Your task to perform on an android device: turn off location Image 0: 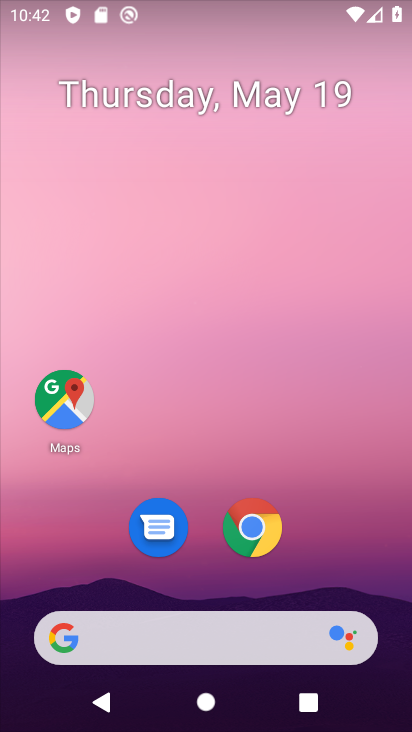
Step 0: drag from (198, 582) to (178, 0)
Your task to perform on an android device: turn off location Image 1: 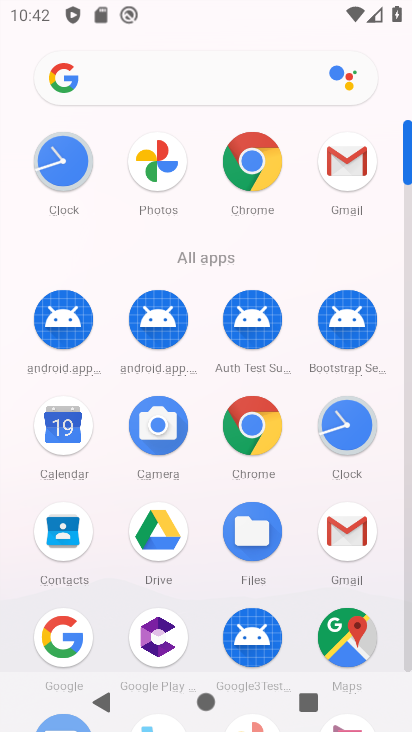
Step 1: drag from (201, 556) to (233, 324)
Your task to perform on an android device: turn off location Image 2: 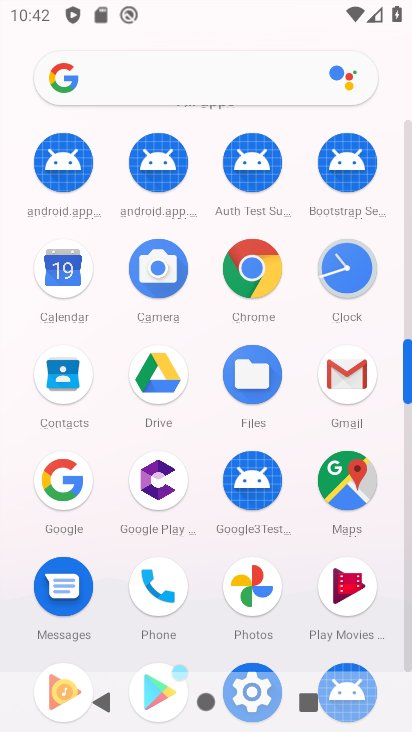
Step 2: drag from (295, 606) to (350, 314)
Your task to perform on an android device: turn off location Image 3: 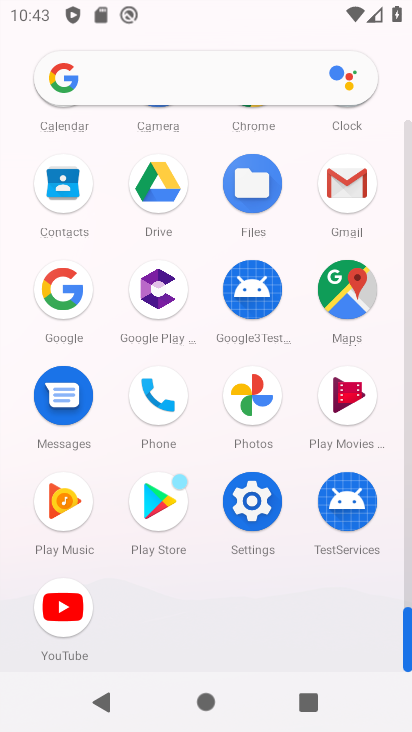
Step 3: click (262, 530)
Your task to perform on an android device: turn off location Image 4: 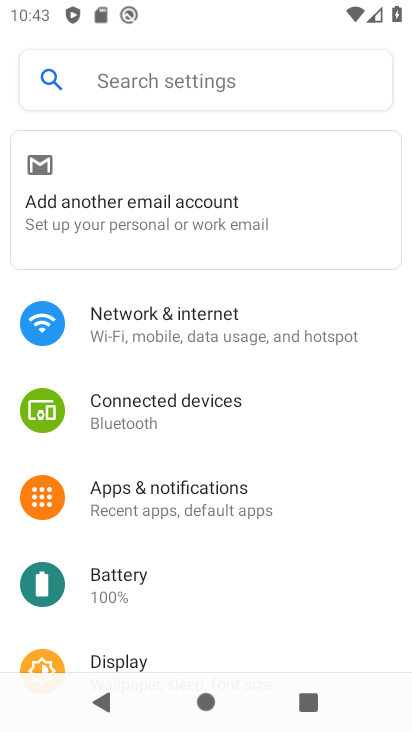
Step 4: drag from (229, 561) to (261, 200)
Your task to perform on an android device: turn off location Image 5: 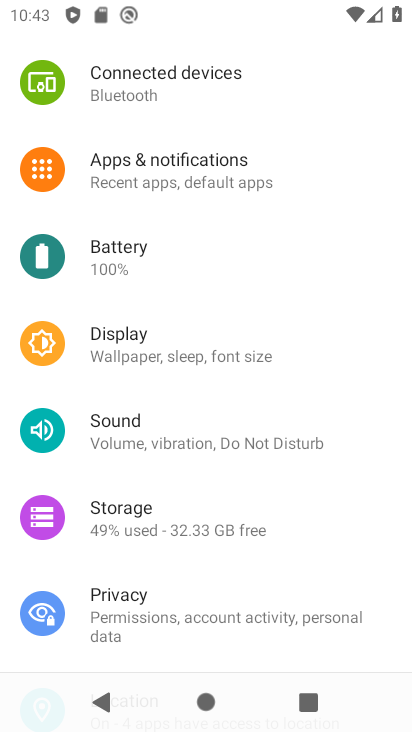
Step 5: drag from (203, 507) to (222, 342)
Your task to perform on an android device: turn off location Image 6: 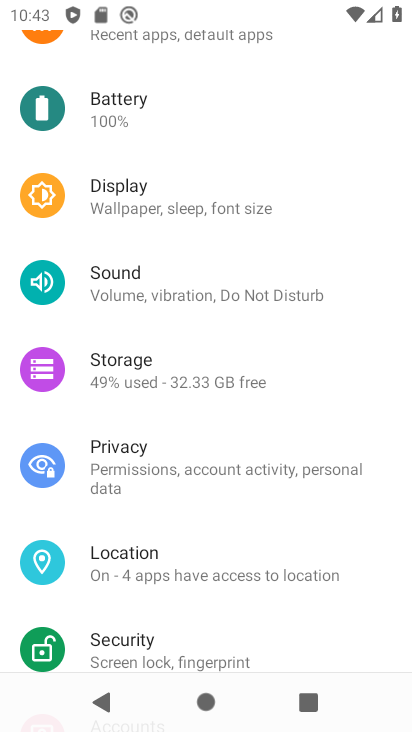
Step 6: click (202, 565)
Your task to perform on an android device: turn off location Image 7: 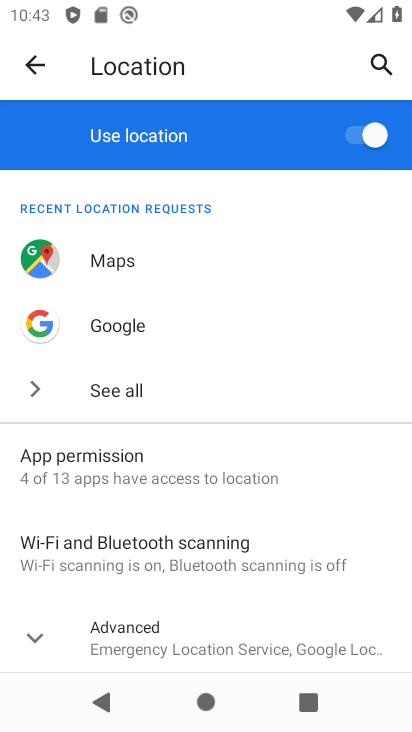
Step 7: click (341, 135)
Your task to perform on an android device: turn off location Image 8: 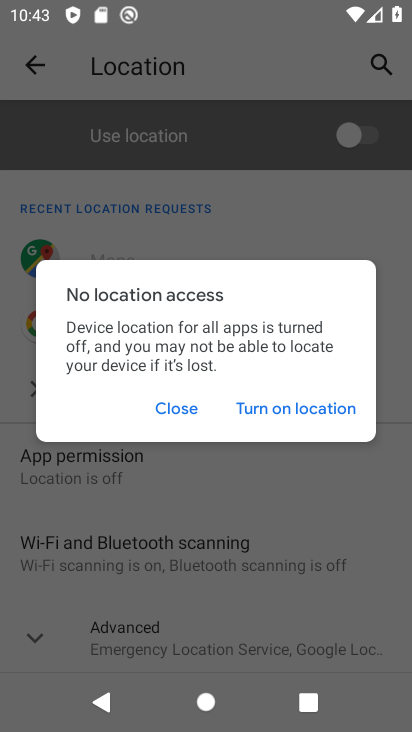
Step 8: task complete